Your task to perform on an android device: choose inbox layout in the gmail app Image 0: 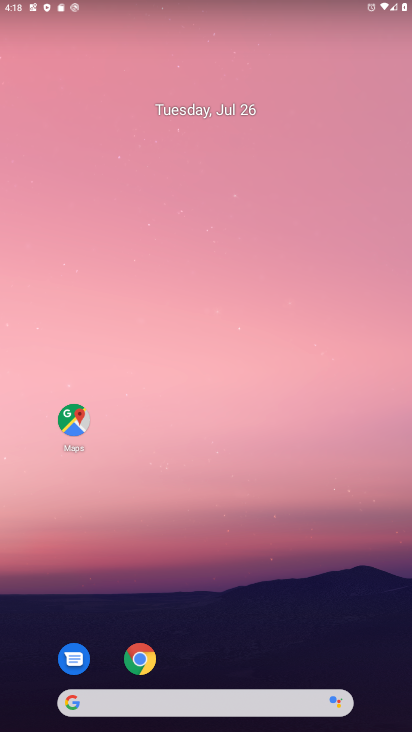
Step 0: press home button
Your task to perform on an android device: choose inbox layout in the gmail app Image 1: 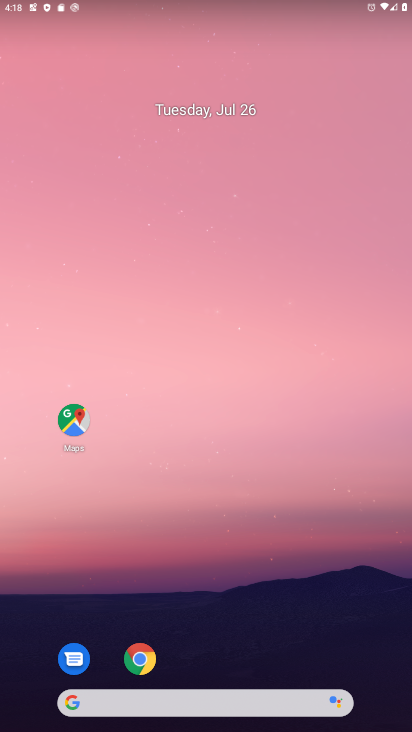
Step 1: drag from (244, 648) to (282, 125)
Your task to perform on an android device: choose inbox layout in the gmail app Image 2: 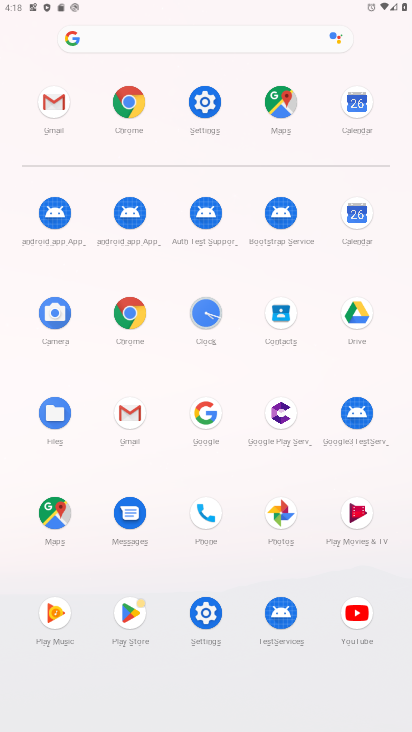
Step 2: click (54, 109)
Your task to perform on an android device: choose inbox layout in the gmail app Image 3: 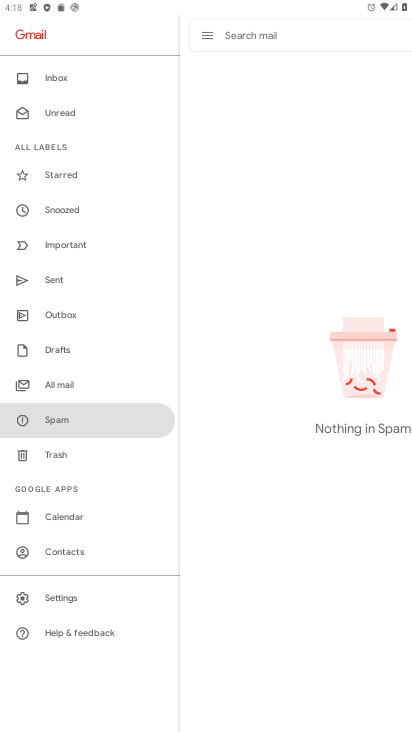
Step 3: click (60, 600)
Your task to perform on an android device: choose inbox layout in the gmail app Image 4: 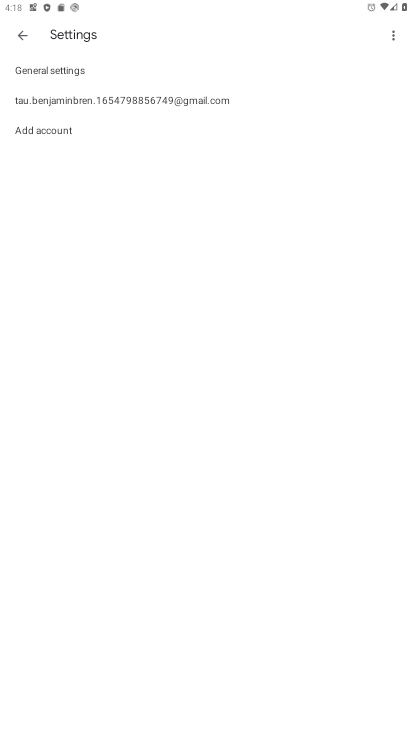
Step 4: click (79, 99)
Your task to perform on an android device: choose inbox layout in the gmail app Image 5: 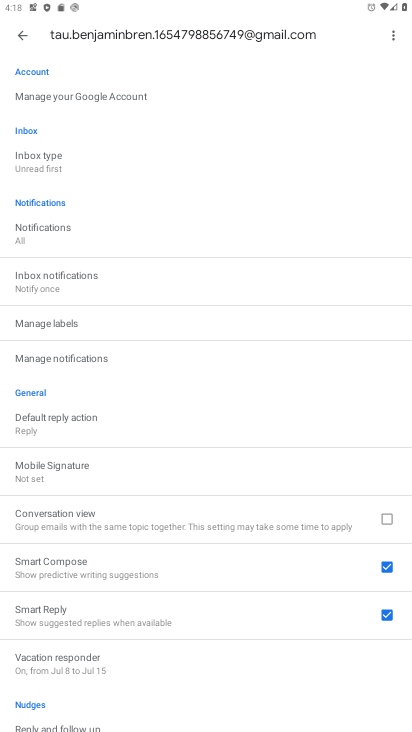
Step 5: click (45, 166)
Your task to perform on an android device: choose inbox layout in the gmail app Image 6: 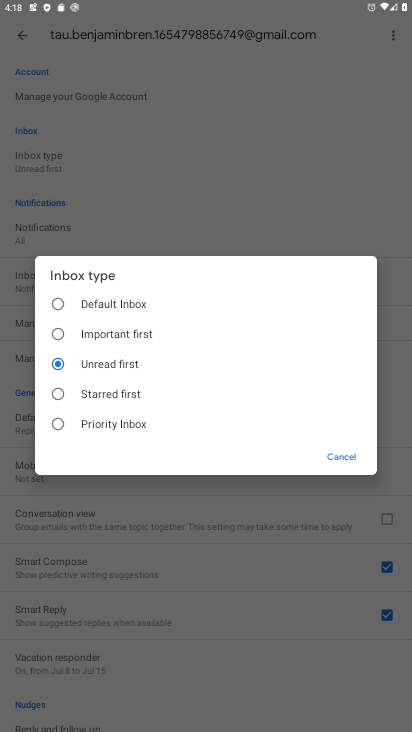
Step 6: click (60, 303)
Your task to perform on an android device: choose inbox layout in the gmail app Image 7: 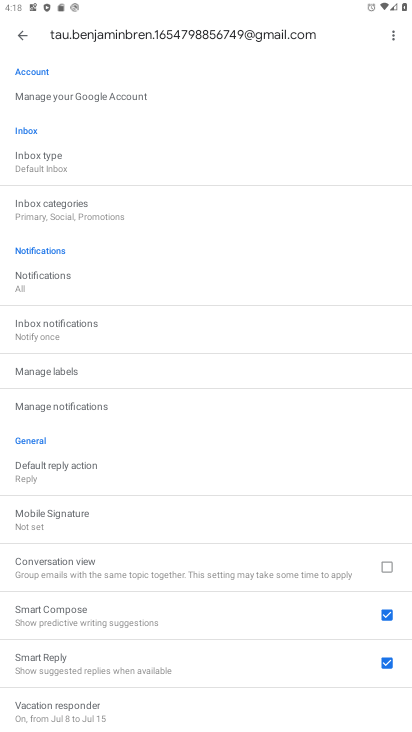
Step 7: task complete